Your task to perform on an android device: manage bookmarks in the chrome app Image 0: 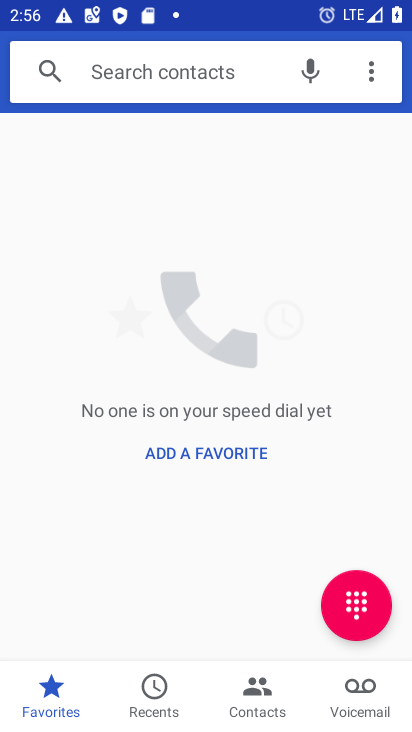
Step 0: press home button
Your task to perform on an android device: manage bookmarks in the chrome app Image 1: 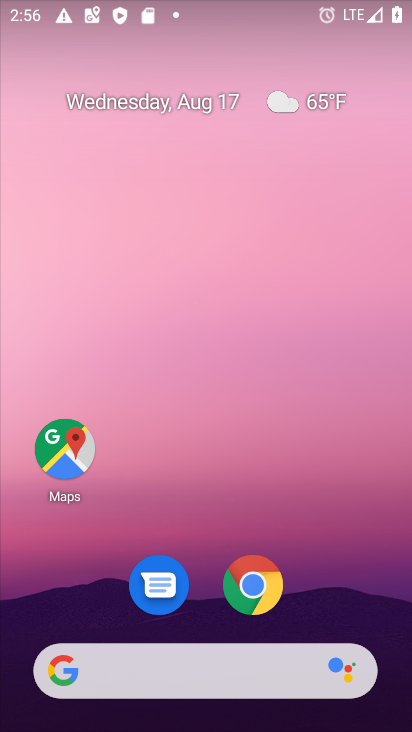
Step 1: click (256, 590)
Your task to perform on an android device: manage bookmarks in the chrome app Image 2: 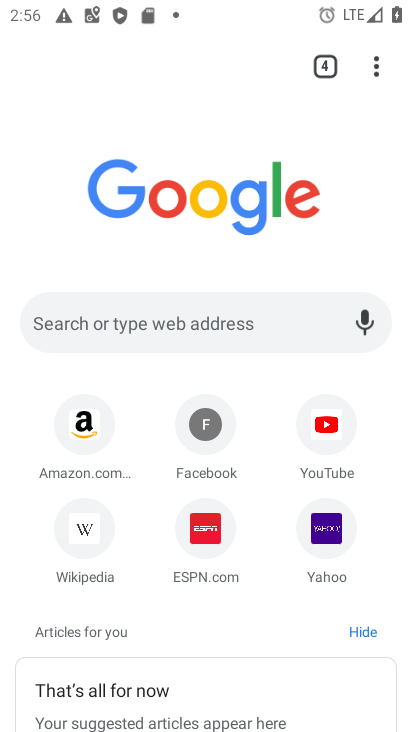
Step 2: click (379, 73)
Your task to perform on an android device: manage bookmarks in the chrome app Image 3: 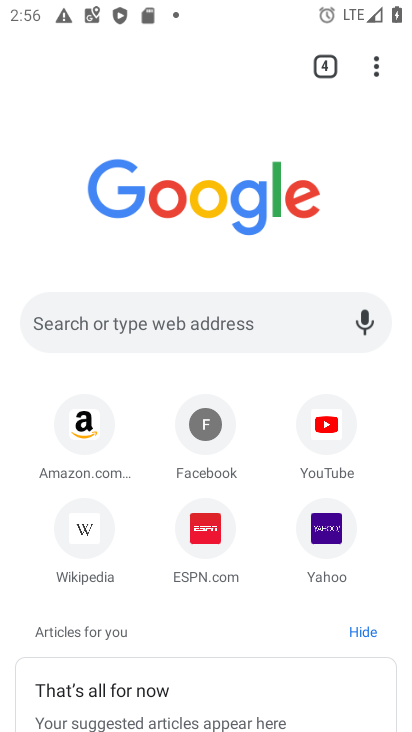
Step 3: click (379, 73)
Your task to perform on an android device: manage bookmarks in the chrome app Image 4: 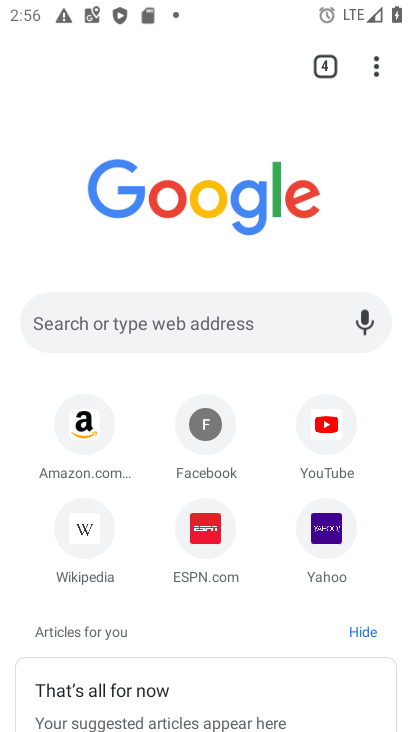
Step 4: click (379, 75)
Your task to perform on an android device: manage bookmarks in the chrome app Image 5: 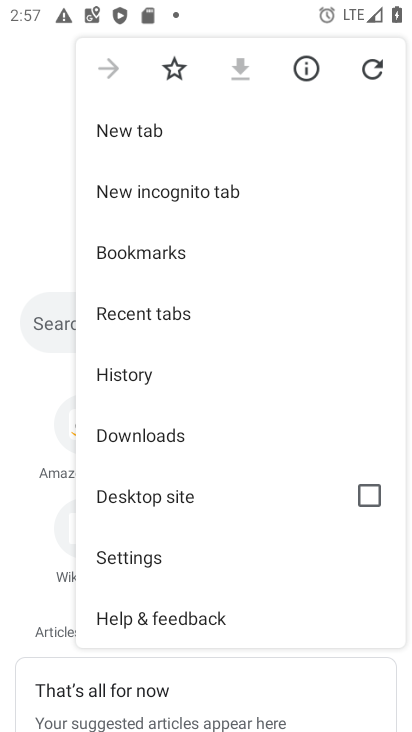
Step 5: click (167, 254)
Your task to perform on an android device: manage bookmarks in the chrome app Image 6: 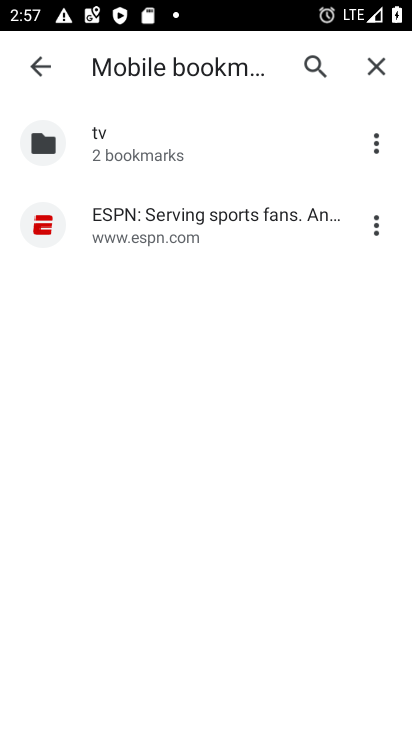
Step 6: click (376, 218)
Your task to perform on an android device: manage bookmarks in the chrome app Image 7: 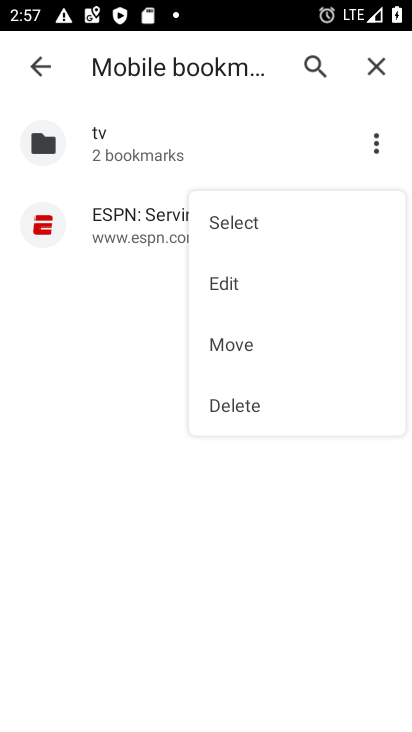
Step 7: click (273, 279)
Your task to perform on an android device: manage bookmarks in the chrome app Image 8: 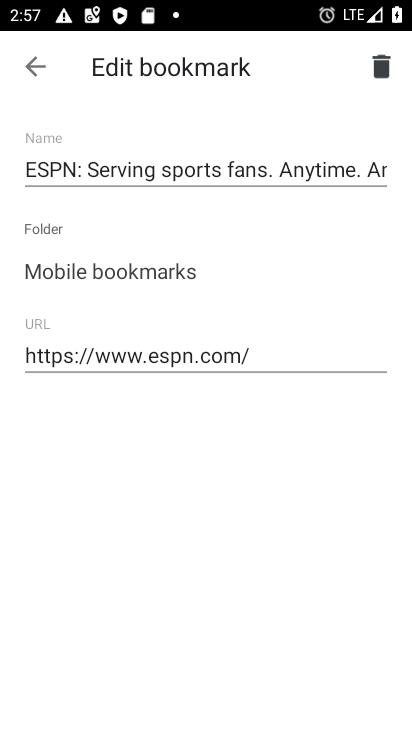
Step 8: task complete